Your task to perform on an android device: Find coffee shops on Maps Image 0: 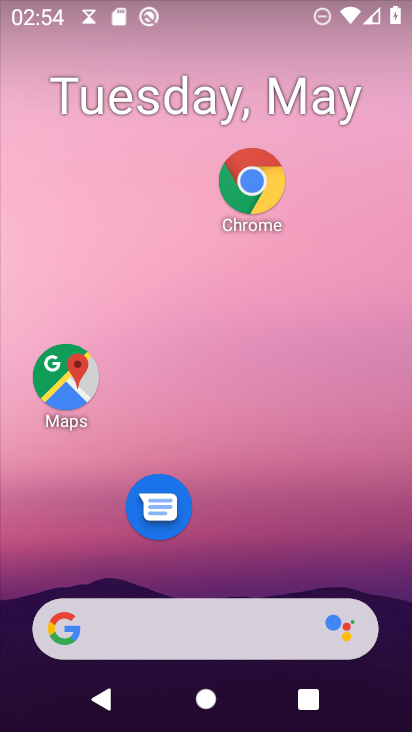
Step 0: click (238, 191)
Your task to perform on an android device: Find coffee shops on Maps Image 1: 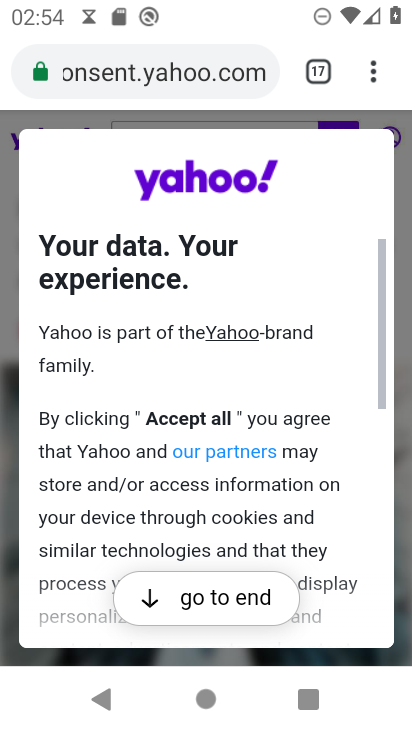
Step 1: click (379, 55)
Your task to perform on an android device: Find coffee shops on Maps Image 2: 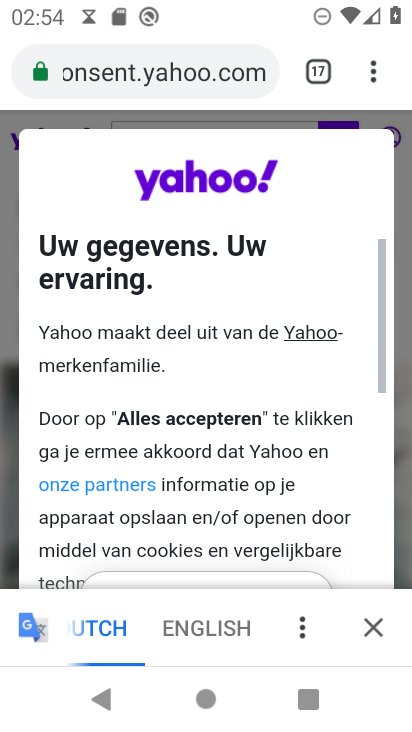
Step 2: press home button
Your task to perform on an android device: Find coffee shops on Maps Image 3: 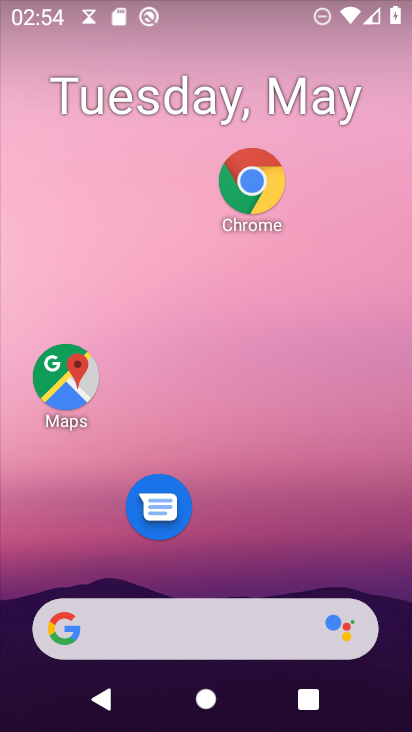
Step 3: click (69, 360)
Your task to perform on an android device: Find coffee shops on Maps Image 4: 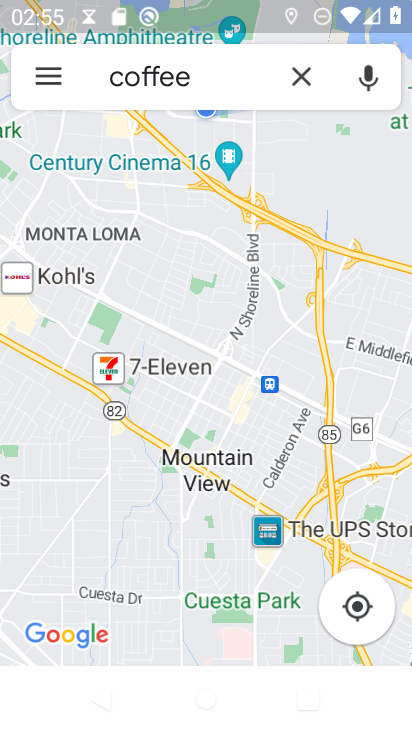
Step 4: task complete